Your task to perform on an android device: Go to battery settings Image 0: 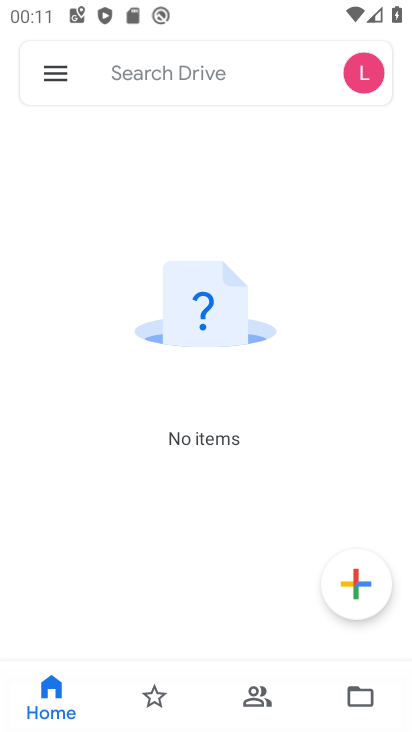
Step 0: press home button
Your task to perform on an android device: Go to battery settings Image 1: 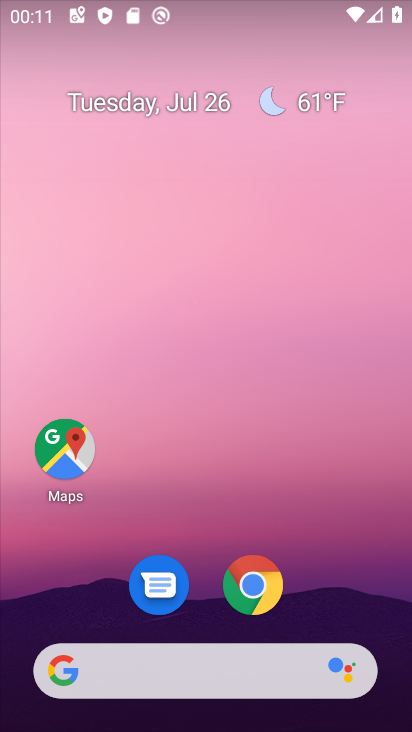
Step 1: drag from (307, 545) to (350, 39)
Your task to perform on an android device: Go to battery settings Image 2: 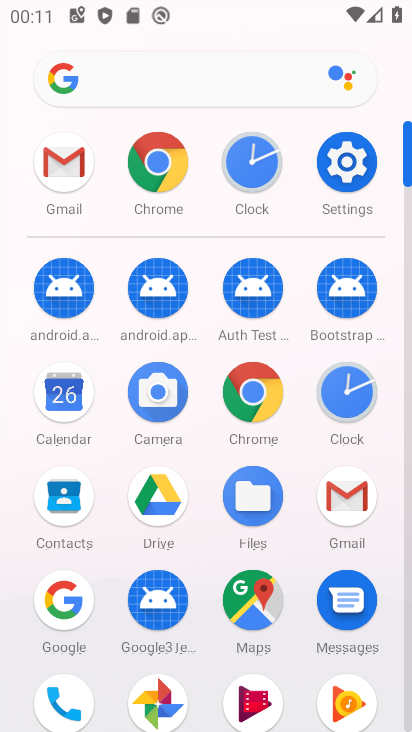
Step 2: click (335, 155)
Your task to perform on an android device: Go to battery settings Image 3: 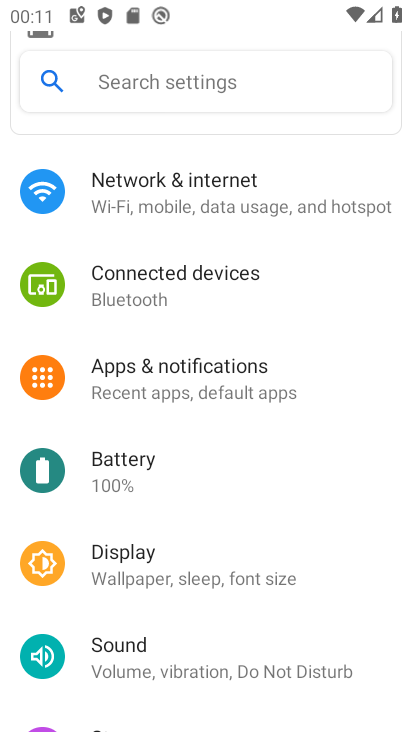
Step 3: click (120, 462)
Your task to perform on an android device: Go to battery settings Image 4: 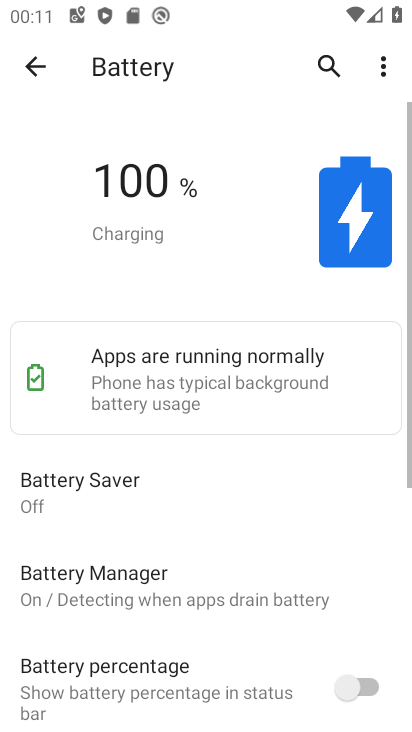
Step 4: task complete